Your task to perform on an android device: refresh tabs in the chrome app Image 0: 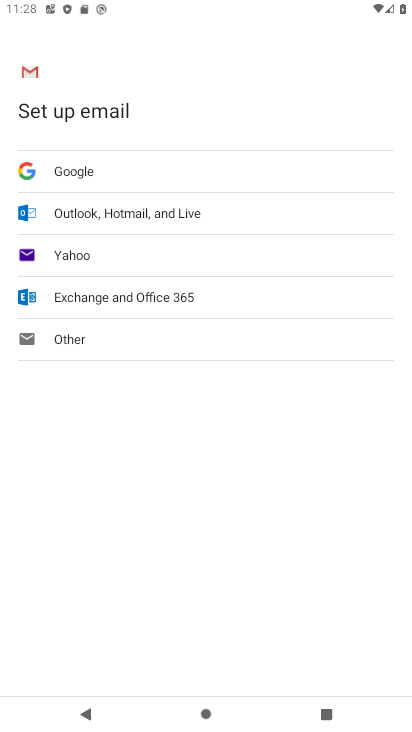
Step 0: press home button
Your task to perform on an android device: refresh tabs in the chrome app Image 1: 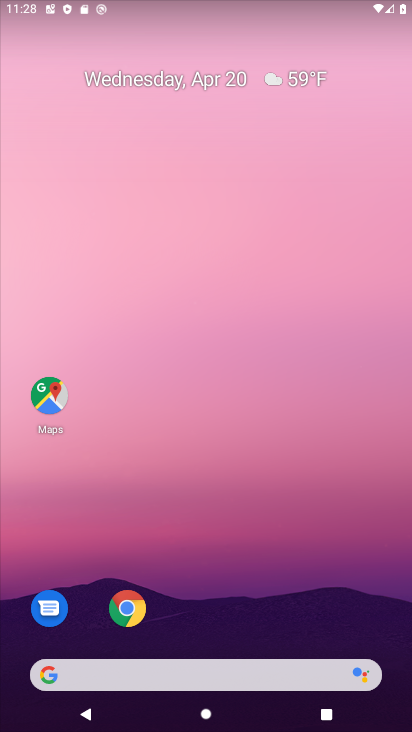
Step 1: drag from (238, 594) to (258, 124)
Your task to perform on an android device: refresh tabs in the chrome app Image 2: 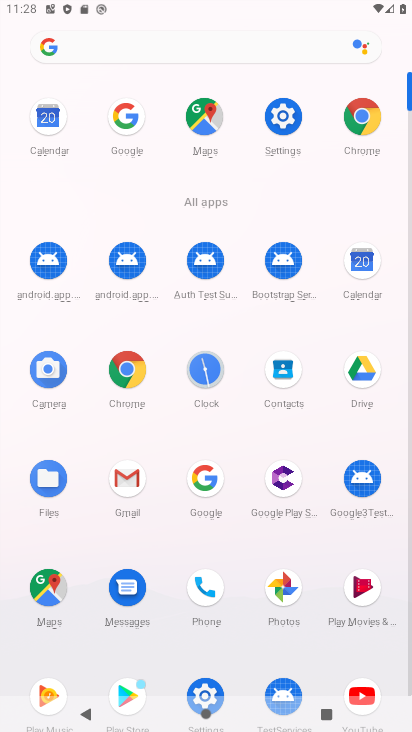
Step 2: click (361, 117)
Your task to perform on an android device: refresh tabs in the chrome app Image 3: 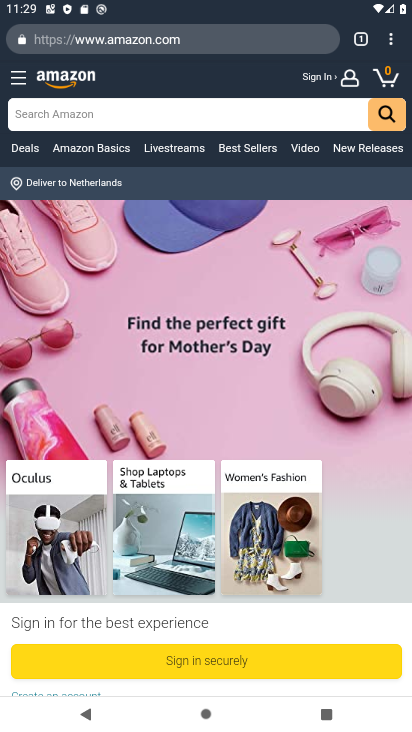
Step 3: click (388, 40)
Your task to perform on an android device: refresh tabs in the chrome app Image 4: 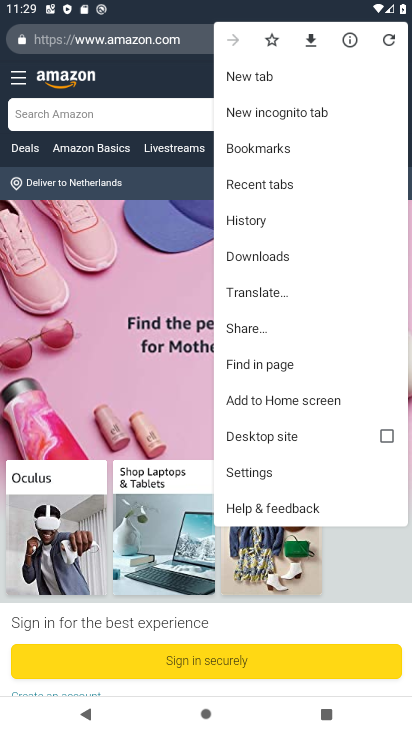
Step 4: click (389, 45)
Your task to perform on an android device: refresh tabs in the chrome app Image 5: 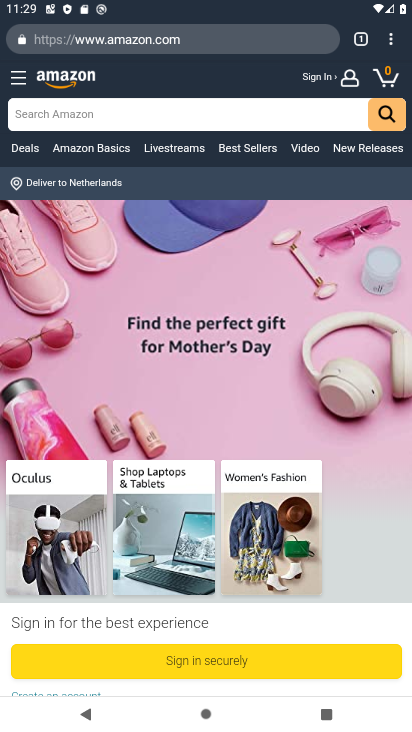
Step 5: task complete